Your task to perform on an android device: add a contact Image 0: 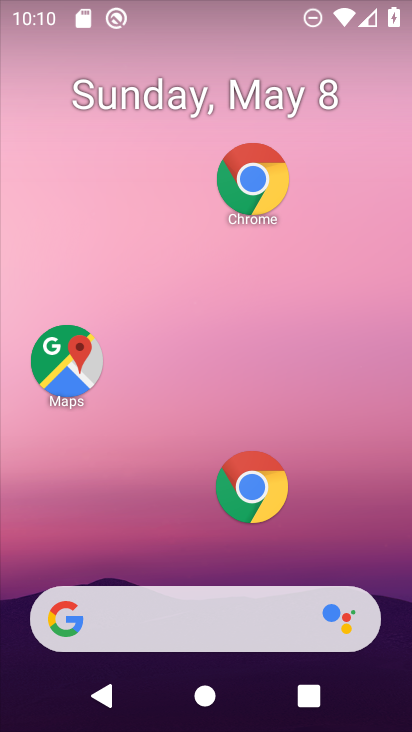
Step 0: drag from (183, 536) to (208, 0)
Your task to perform on an android device: add a contact Image 1: 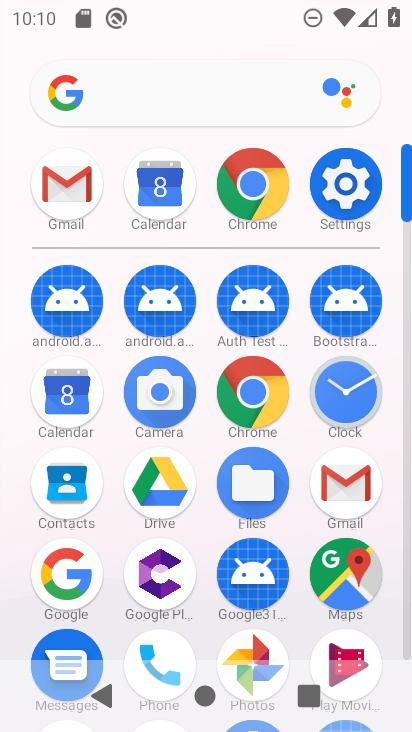
Step 1: click (77, 501)
Your task to perform on an android device: add a contact Image 2: 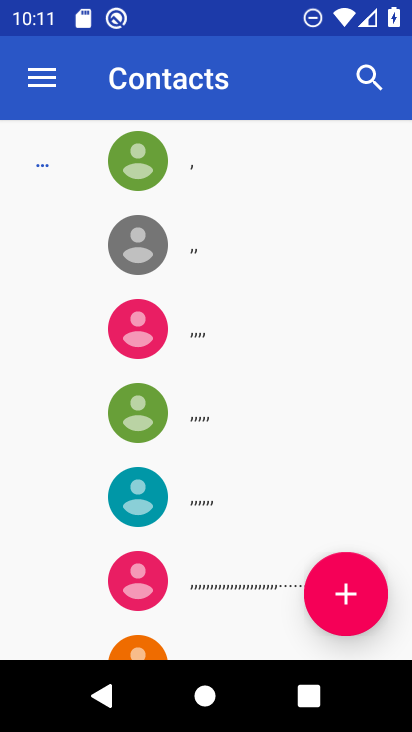
Step 2: click (341, 598)
Your task to perform on an android device: add a contact Image 3: 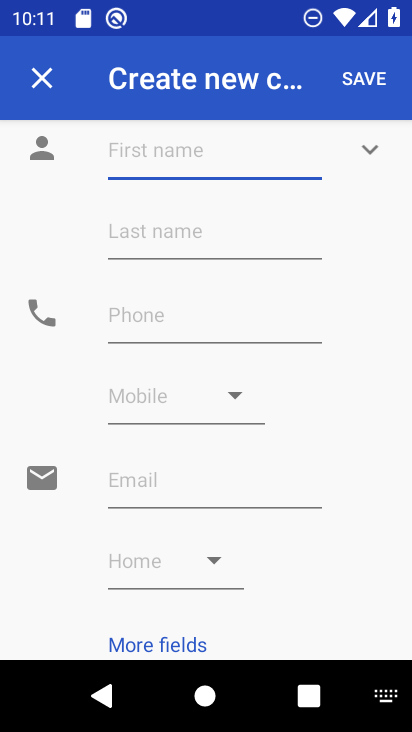
Step 3: type "Veer Mahan"
Your task to perform on an android device: add a contact Image 4: 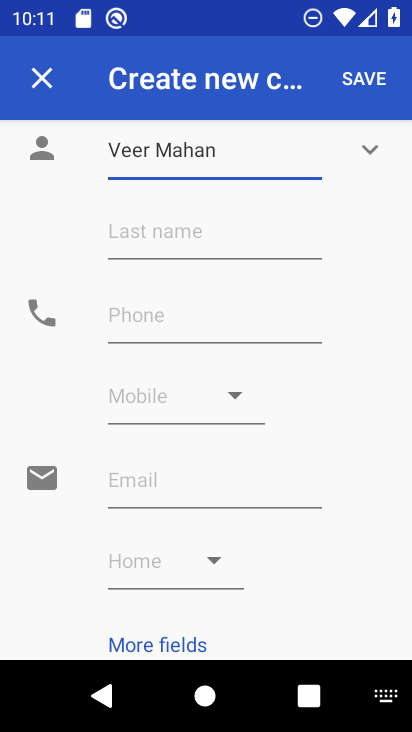
Step 4: click (248, 236)
Your task to perform on an android device: add a contact Image 5: 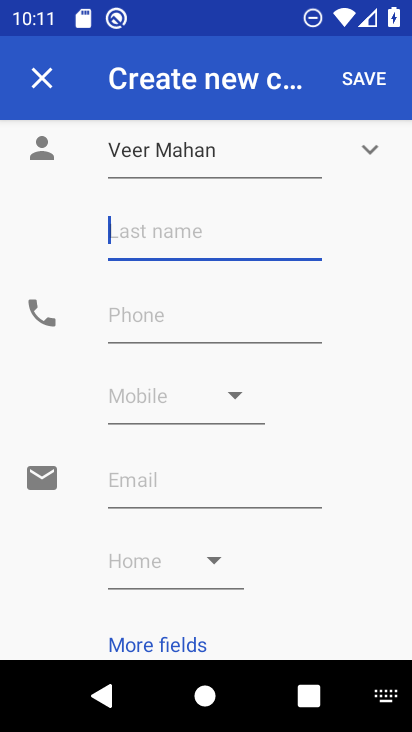
Step 5: type "Rinku & Khali"
Your task to perform on an android device: add a contact Image 6: 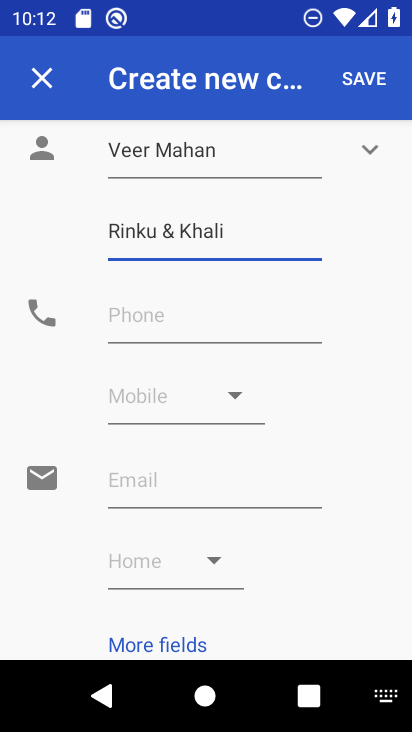
Step 6: click (234, 332)
Your task to perform on an android device: add a contact Image 7: 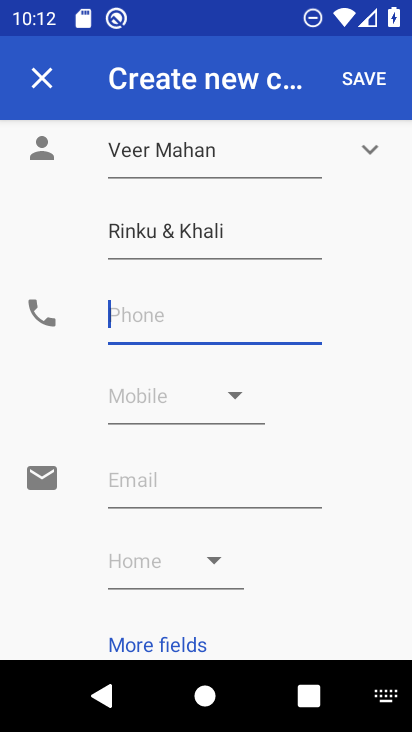
Step 7: type "011223344556677"
Your task to perform on an android device: add a contact Image 8: 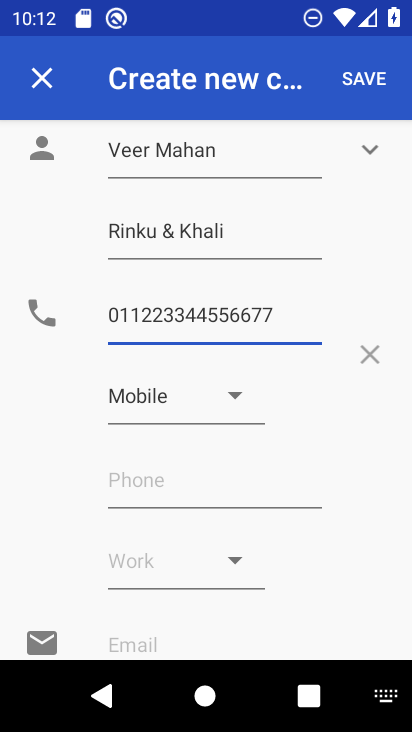
Step 8: click (370, 72)
Your task to perform on an android device: add a contact Image 9: 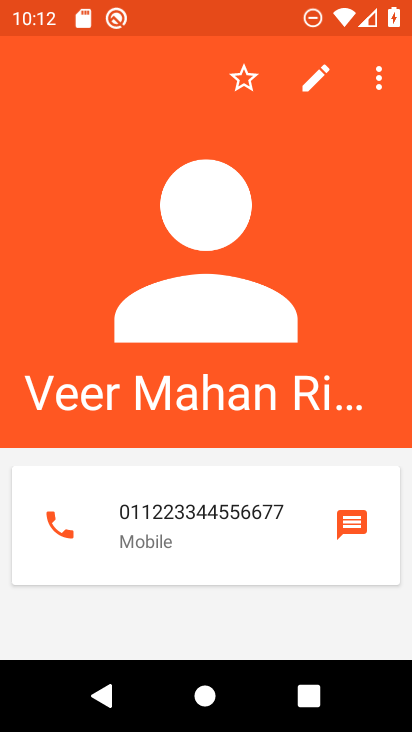
Step 9: task complete